Your task to perform on an android device: Open Google Maps Image 0: 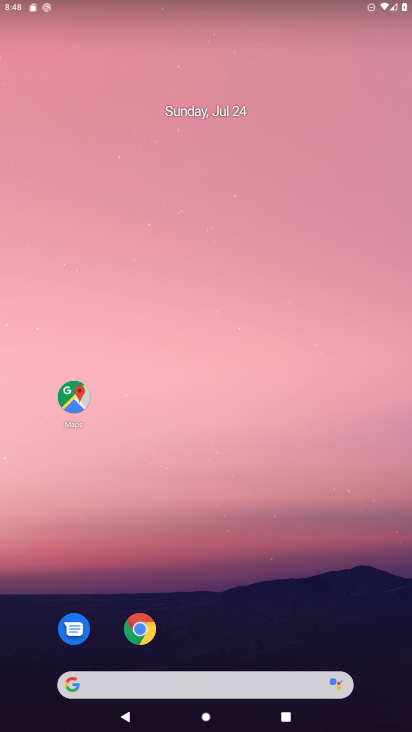
Step 0: drag from (362, 645) to (100, 37)
Your task to perform on an android device: Open Google Maps Image 1: 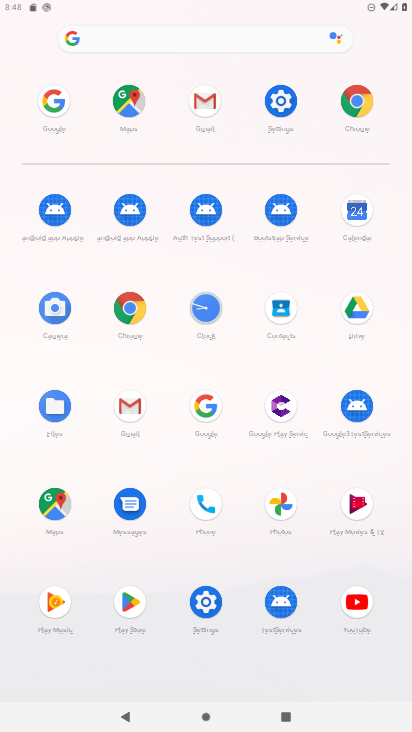
Step 1: click (51, 497)
Your task to perform on an android device: Open Google Maps Image 2: 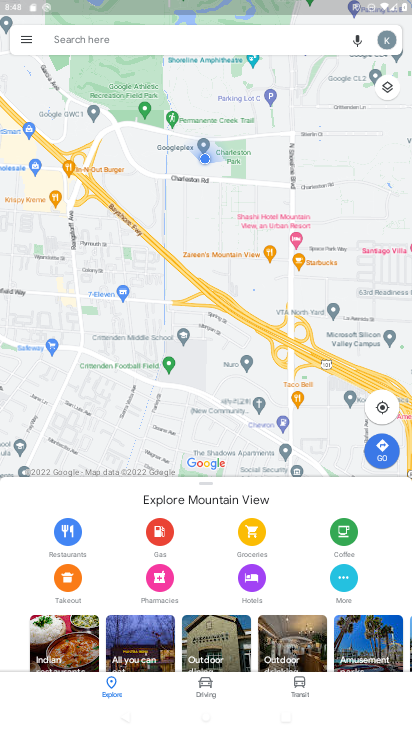
Step 2: task complete